Your task to perform on an android device: toggle improve location accuracy Image 0: 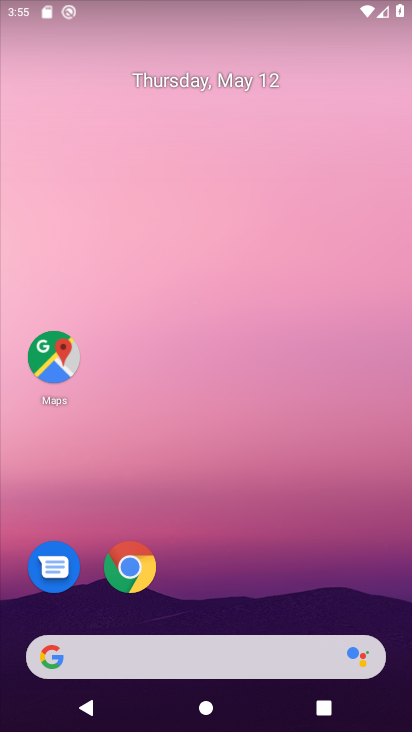
Step 0: drag from (228, 680) to (247, 139)
Your task to perform on an android device: toggle improve location accuracy Image 1: 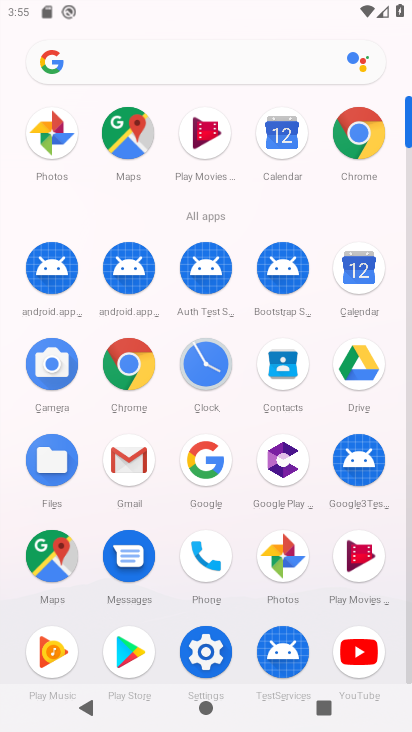
Step 1: click (204, 632)
Your task to perform on an android device: toggle improve location accuracy Image 2: 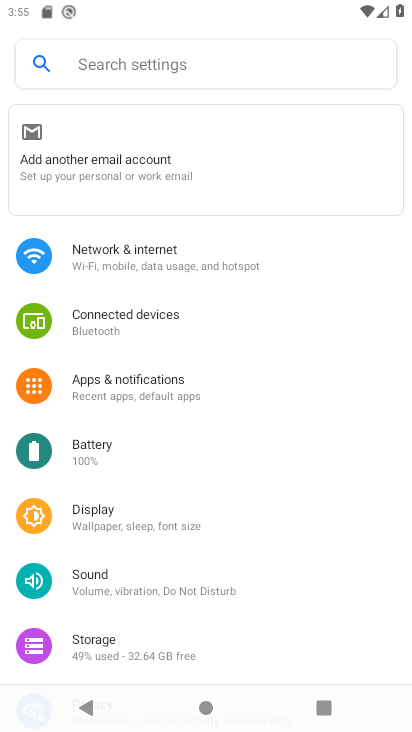
Step 2: click (192, 71)
Your task to perform on an android device: toggle improve location accuracy Image 3: 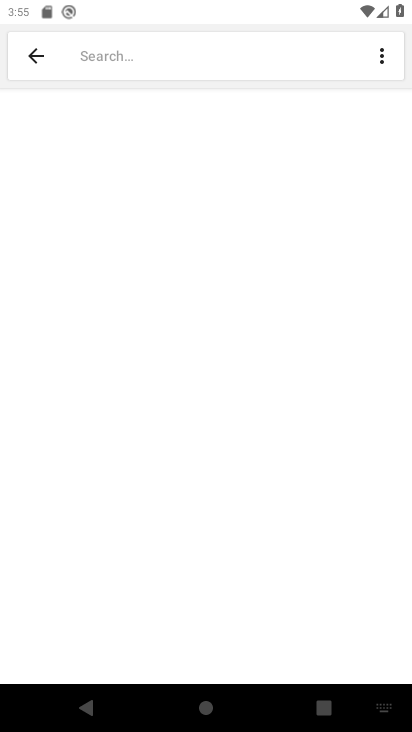
Step 3: click (36, 57)
Your task to perform on an android device: toggle improve location accuracy Image 4: 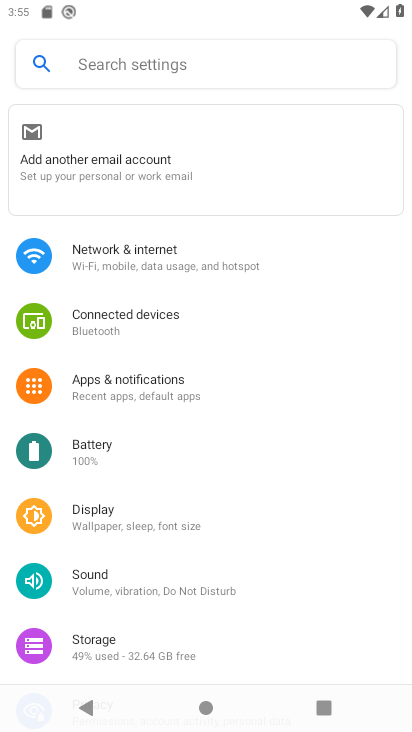
Step 4: drag from (133, 650) to (158, 478)
Your task to perform on an android device: toggle improve location accuracy Image 5: 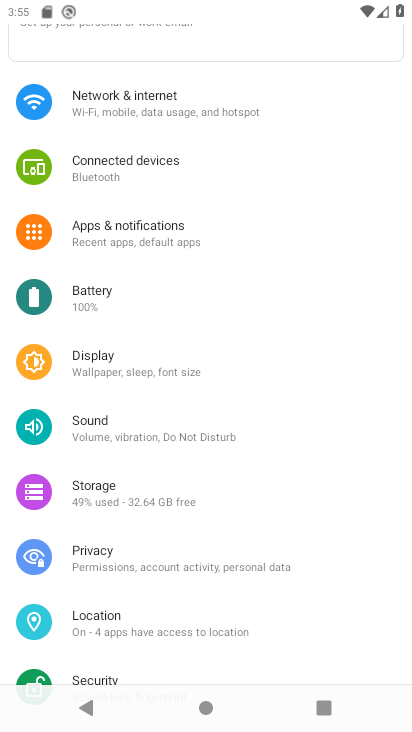
Step 5: click (114, 618)
Your task to perform on an android device: toggle improve location accuracy Image 6: 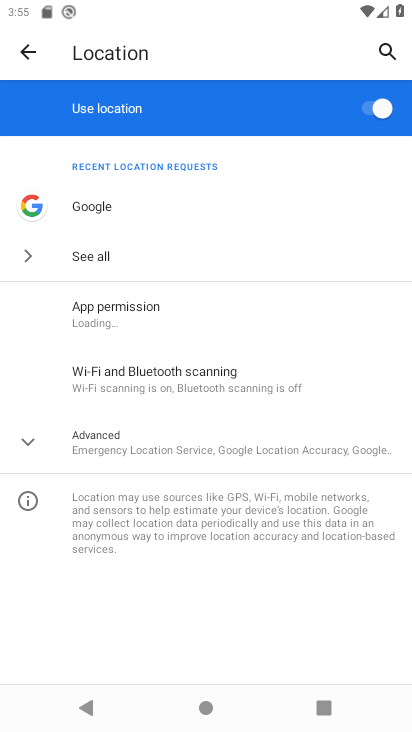
Step 6: click (63, 437)
Your task to perform on an android device: toggle improve location accuracy Image 7: 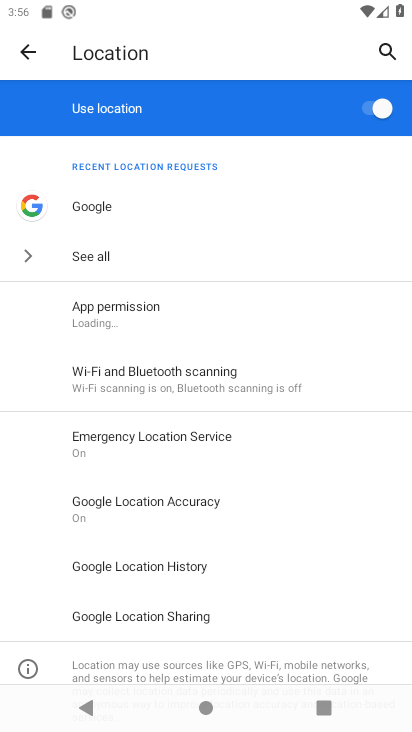
Step 7: click (173, 508)
Your task to perform on an android device: toggle improve location accuracy Image 8: 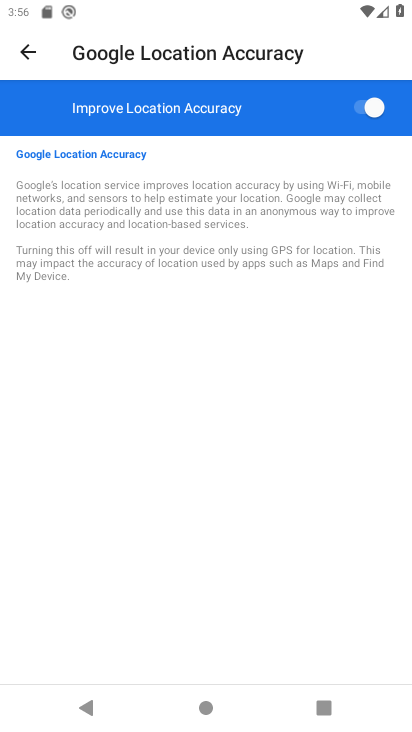
Step 8: task complete